Your task to perform on an android device: show emergency info Image 0: 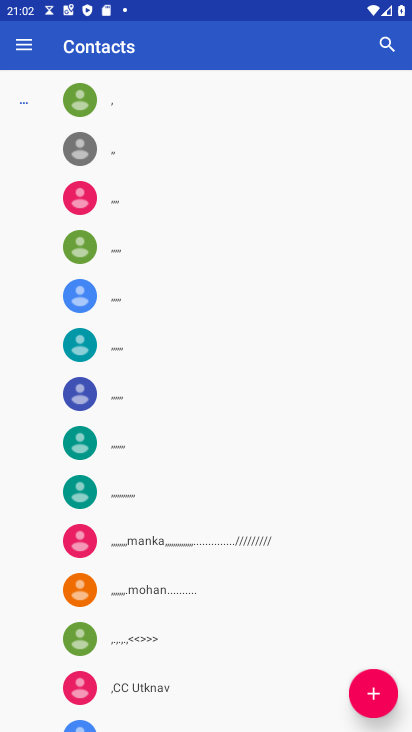
Step 0: press home button
Your task to perform on an android device: show emergency info Image 1: 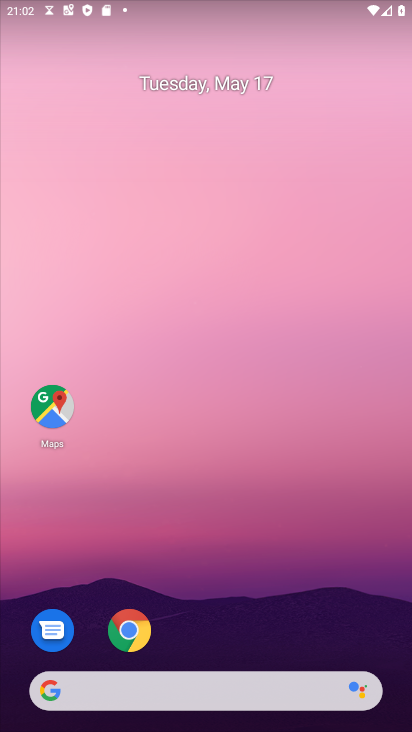
Step 1: drag from (174, 595) to (129, 98)
Your task to perform on an android device: show emergency info Image 2: 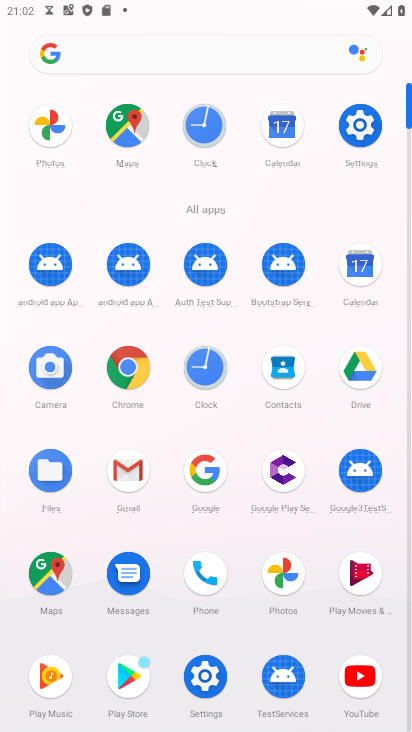
Step 2: click (360, 127)
Your task to perform on an android device: show emergency info Image 3: 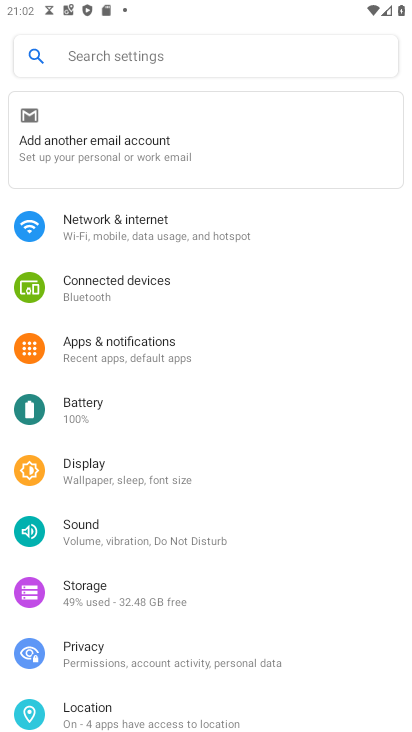
Step 3: drag from (205, 677) to (209, 241)
Your task to perform on an android device: show emergency info Image 4: 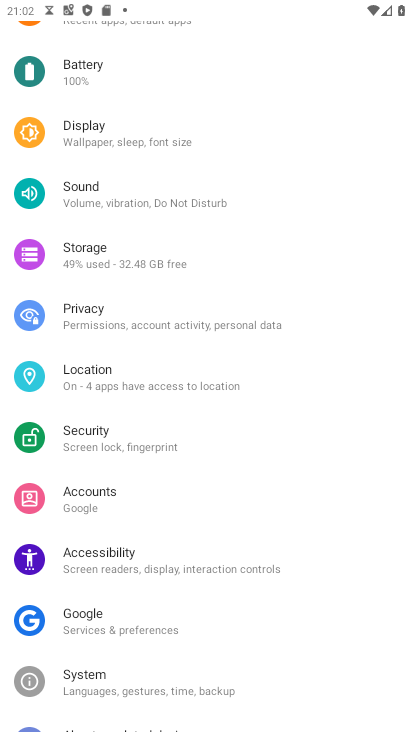
Step 4: drag from (154, 684) to (170, 426)
Your task to perform on an android device: show emergency info Image 5: 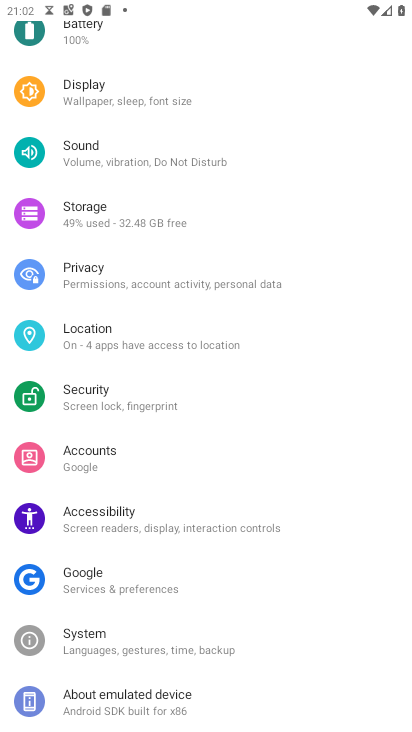
Step 5: click (153, 711)
Your task to perform on an android device: show emergency info Image 6: 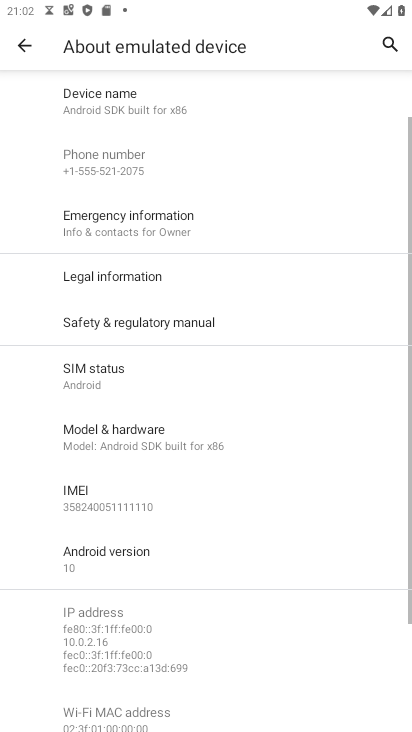
Step 6: click (102, 213)
Your task to perform on an android device: show emergency info Image 7: 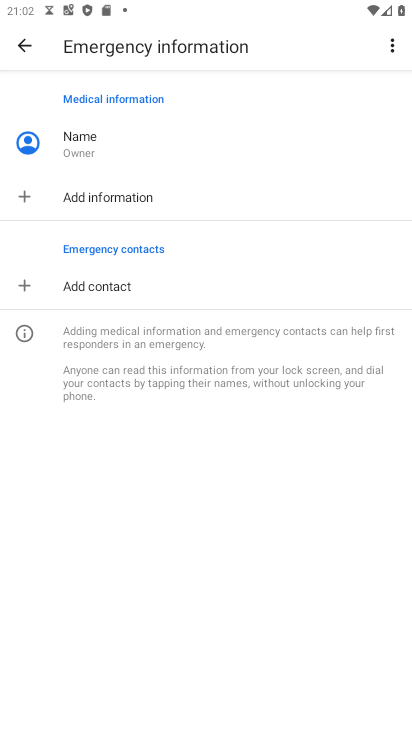
Step 7: task complete